Your task to perform on an android device: Go to Maps Image 0: 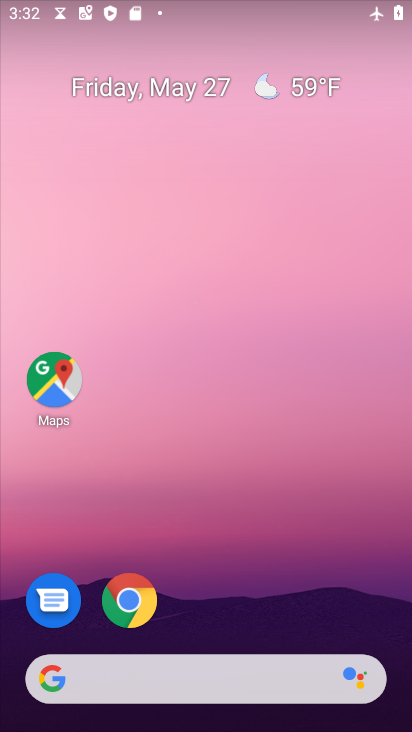
Step 0: click (54, 383)
Your task to perform on an android device: Go to Maps Image 1: 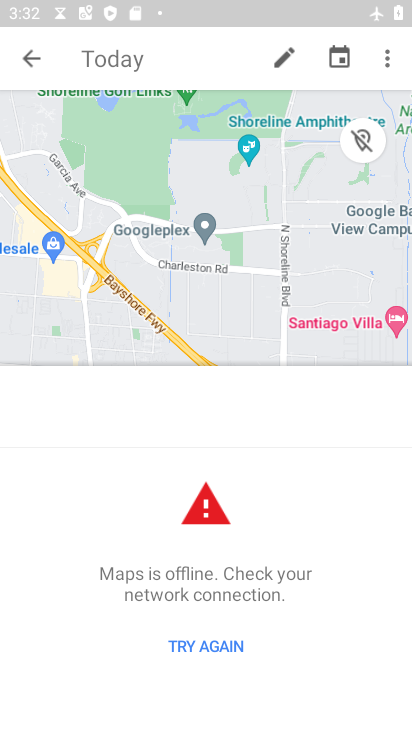
Step 1: click (54, 383)
Your task to perform on an android device: Go to Maps Image 2: 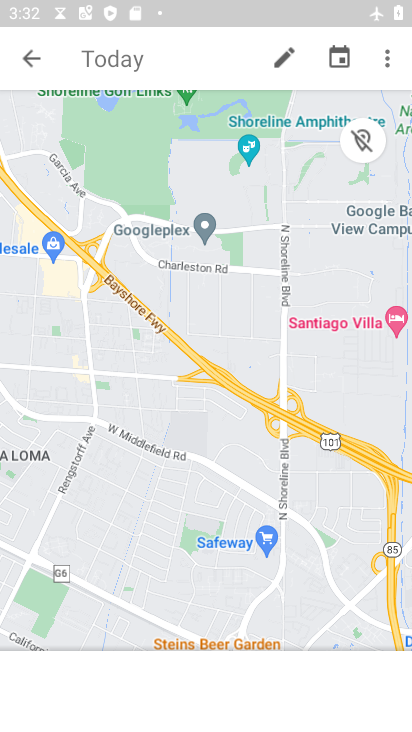
Step 2: press home button
Your task to perform on an android device: Go to Maps Image 3: 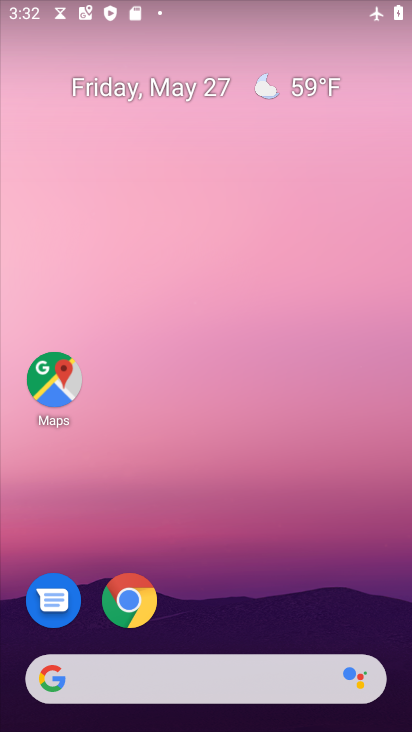
Step 3: drag from (220, 490) to (248, 134)
Your task to perform on an android device: Go to Maps Image 4: 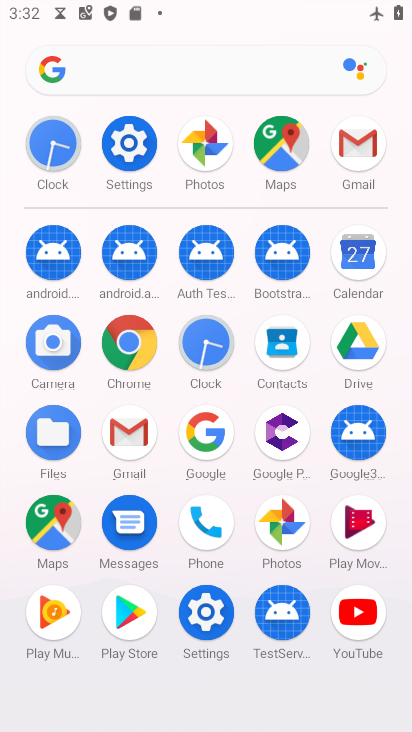
Step 4: click (125, 143)
Your task to perform on an android device: Go to Maps Image 5: 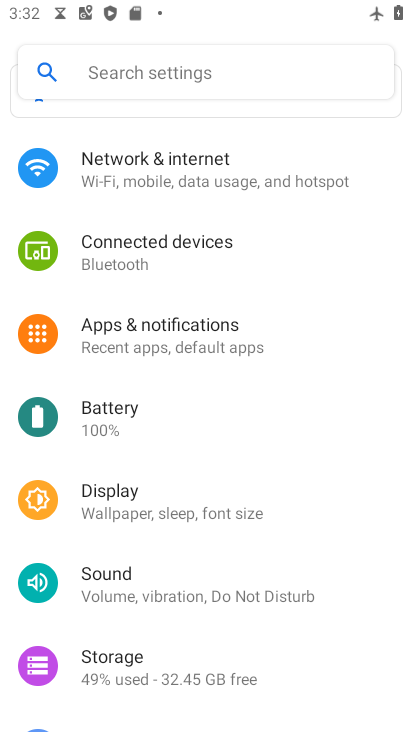
Step 5: click (148, 178)
Your task to perform on an android device: Go to Maps Image 6: 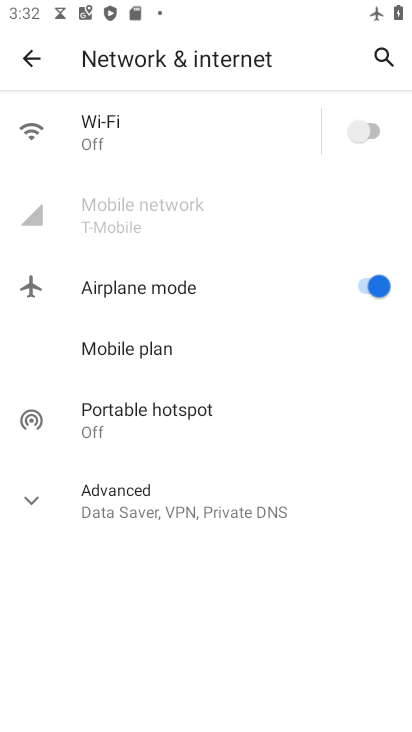
Step 6: click (380, 284)
Your task to perform on an android device: Go to Maps Image 7: 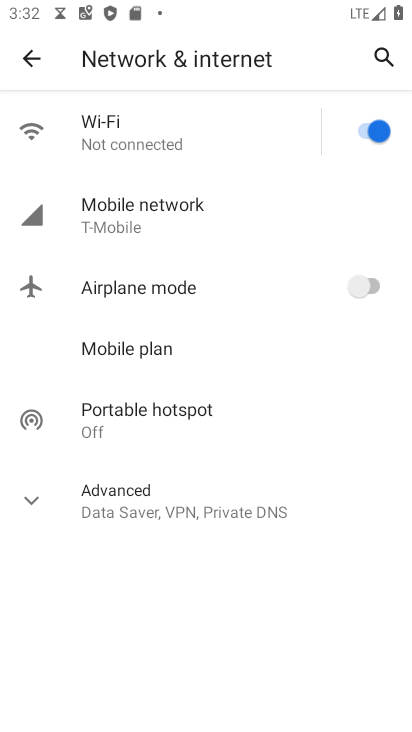
Step 7: press home button
Your task to perform on an android device: Go to Maps Image 8: 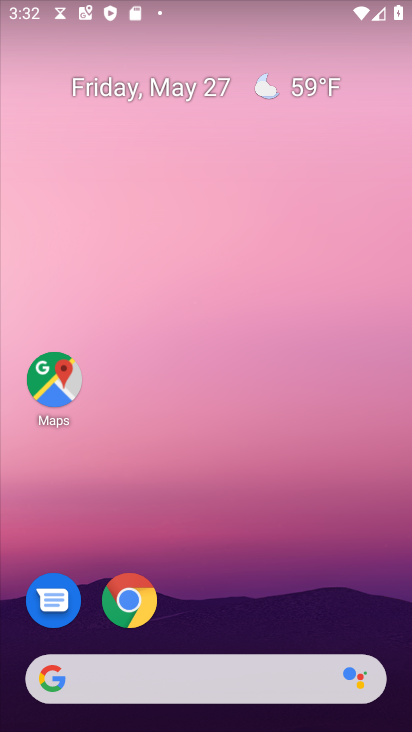
Step 8: click (56, 380)
Your task to perform on an android device: Go to Maps Image 9: 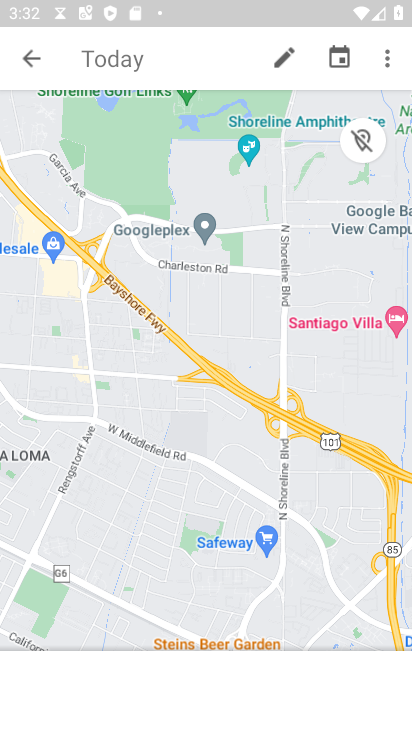
Step 9: task complete